Your task to perform on an android device: turn off priority inbox in the gmail app Image 0: 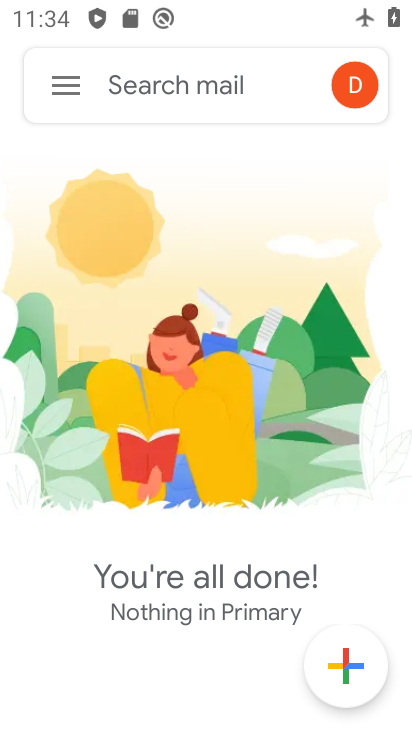
Step 0: press home button
Your task to perform on an android device: turn off priority inbox in the gmail app Image 1: 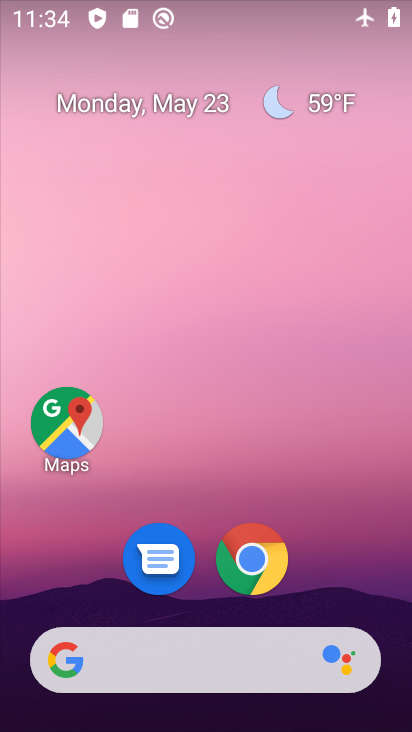
Step 1: drag from (380, 615) to (183, 23)
Your task to perform on an android device: turn off priority inbox in the gmail app Image 2: 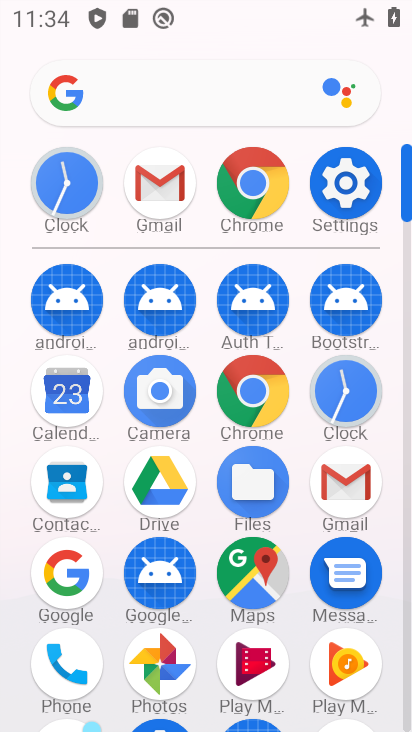
Step 2: click (335, 495)
Your task to perform on an android device: turn off priority inbox in the gmail app Image 3: 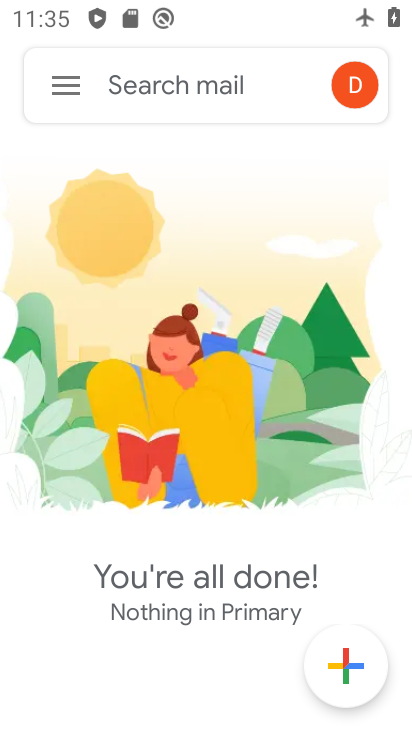
Step 3: click (80, 79)
Your task to perform on an android device: turn off priority inbox in the gmail app Image 4: 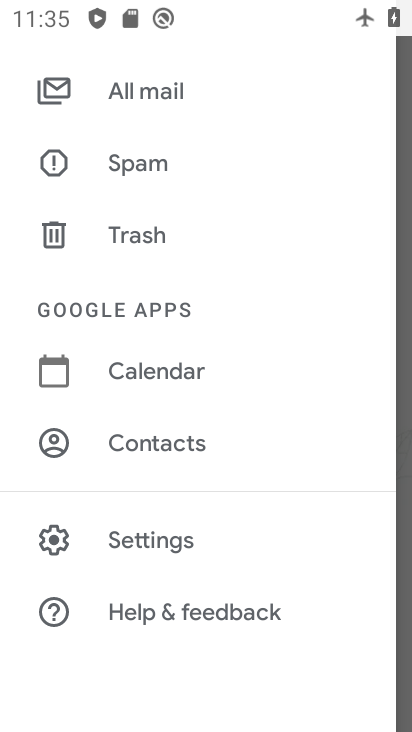
Step 4: click (198, 540)
Your task to perform on an android device: turn off priority inbox in the gmail app Image 5: 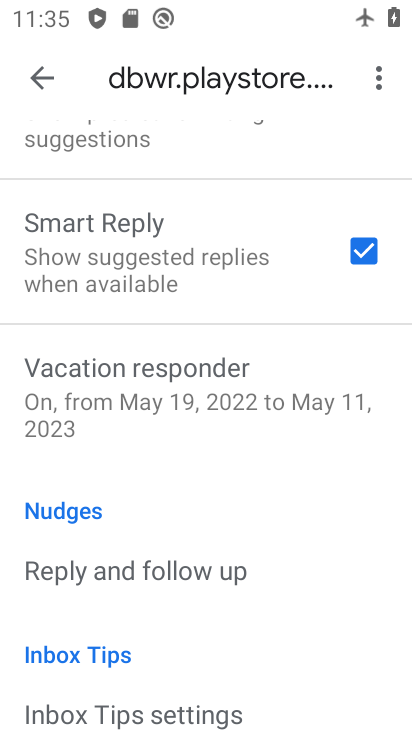
Step 5: drag from (180, 314) to (326, 724)
Your task to perform on an android device: turn off priority inbox in the gmail app Image 6: 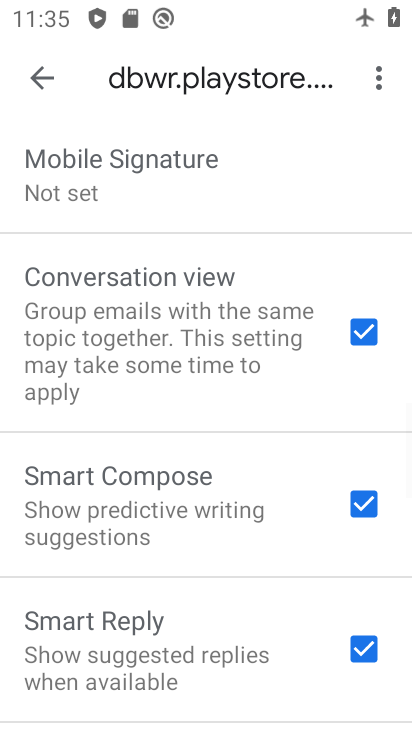
Step 6: drag from (201, 225) to (196, 570)
Your task to perform on an android device: turn off priority inbox in the gmail app Image 7: 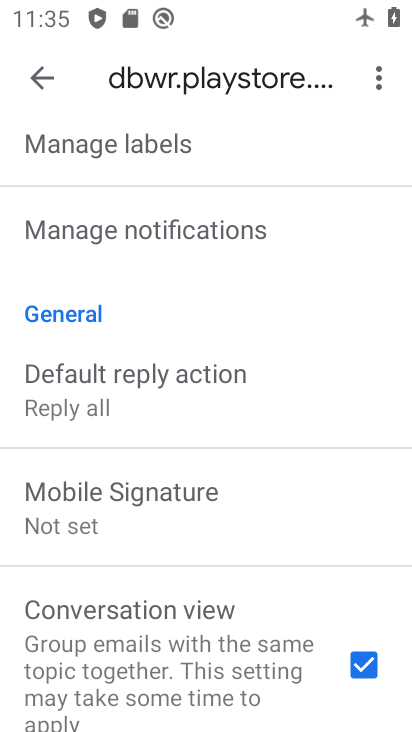
Step 7: drag from (206, 211) to (211, 503)
Your task to perform on an android device: turn off priority inbox in the gmail app Image 8: 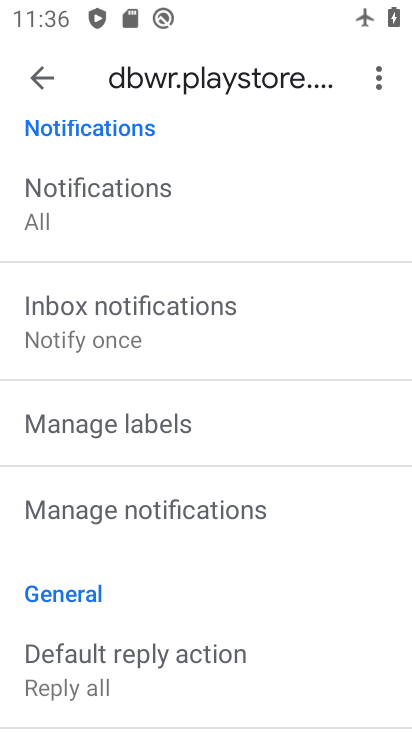
Step 8: drag from (194, 249) to (199, 551)
Your task to perform on an android device: turn off priority inbox in the gmail app Image 9: 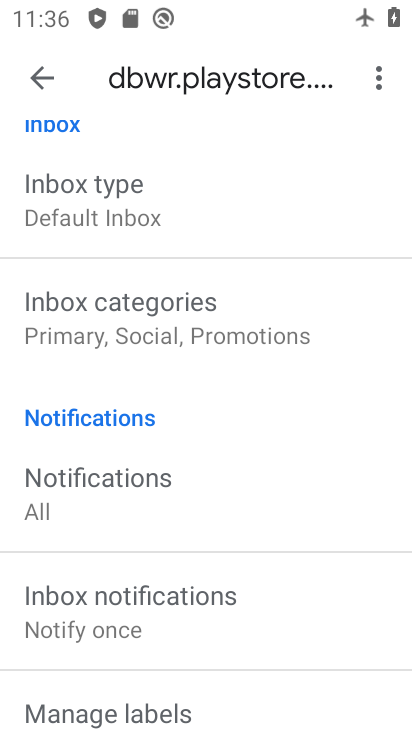
Step 9: click (132, 197)
Your task to perform on an android device: turn off priority inbox in the gmail app Image 10: 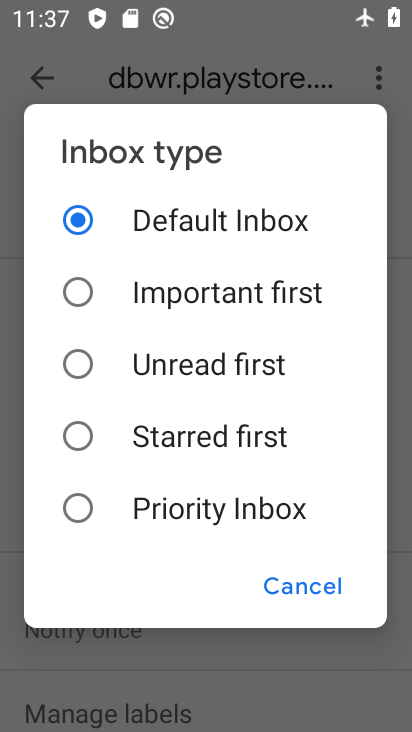
Step 10: task complete